Your task to perform on an android device: change the upload size in google photos Image 0: 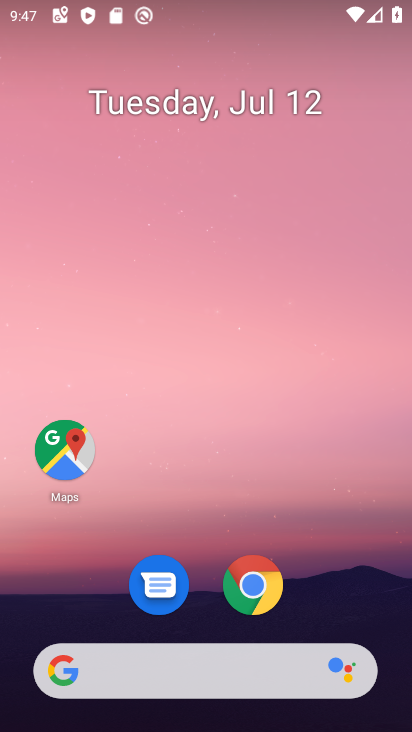
Step 0: drag from (172, 689) to (334, 176)
Your task to perform on an android device: change the upload size in google photos Image 1: 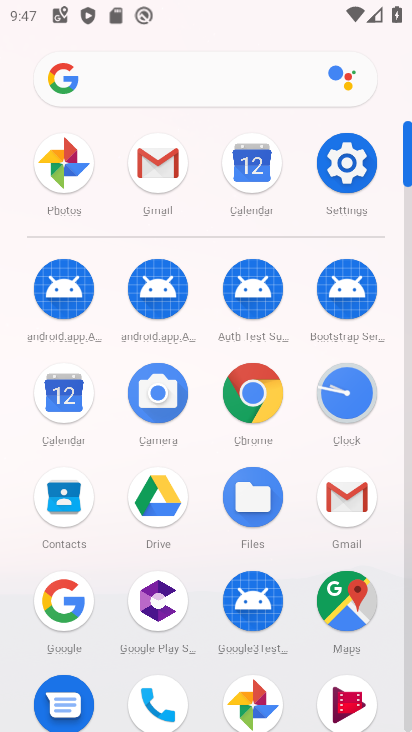
Step 1: click (59, 159)
Your task to perform on an android device: change the upload size in google photos Image 2: 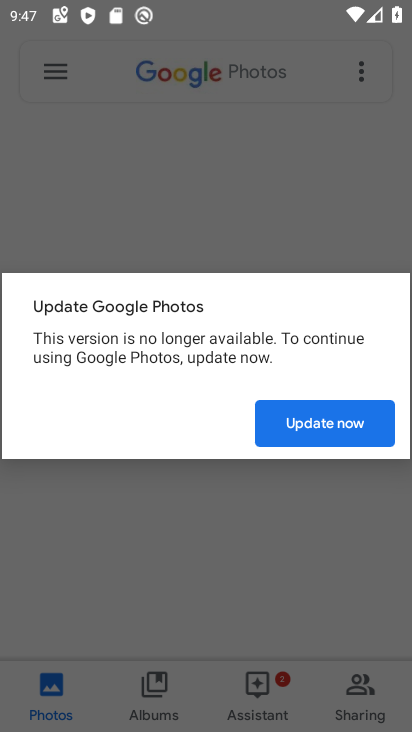
Step 2: click (313, 416)
Your task to perform on an android device: change the upload size in google photos Image 3: 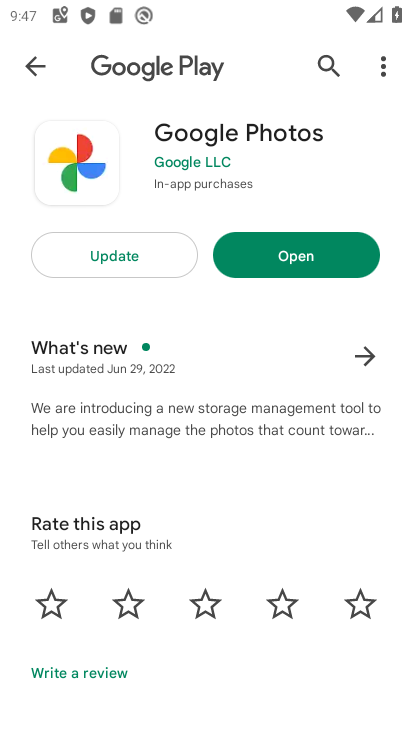
Step 3: click (293, 262)
Your task to perform on an android device: change the upload size in google photos Image 4: 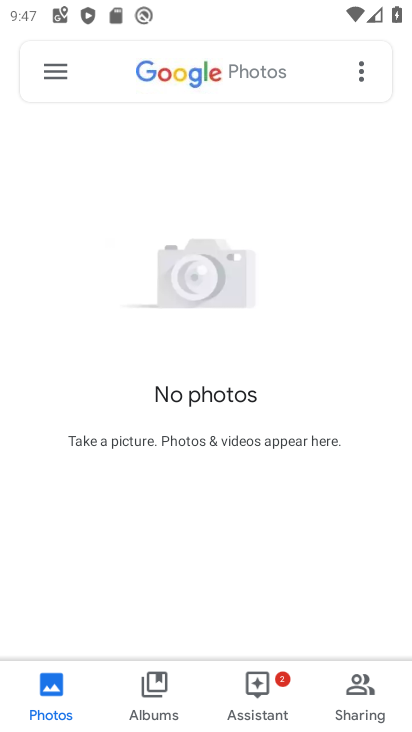
Step 4: click (59, 75)
Your task to perform on an android device: change the upload size in google photos Image 5: 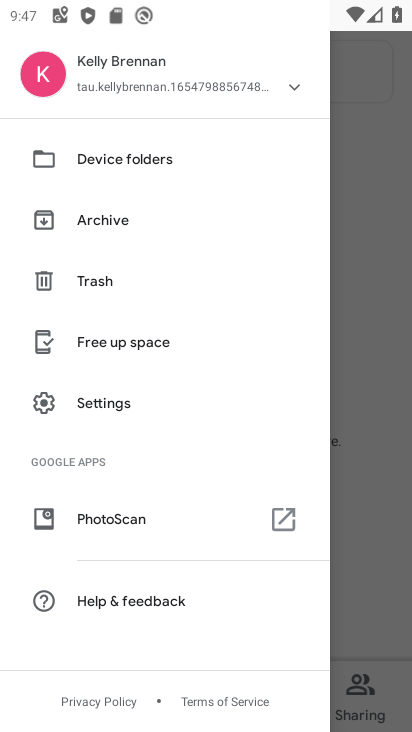
Step 5: click (109, 409)
Your task to perform on an android device: change the upload size in google photos Image 6: 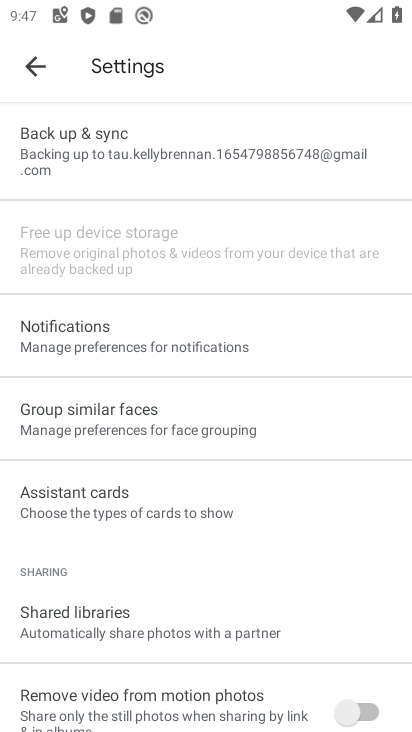
Step 6: click (161, 167)
Your task to perform on an android device: change the upload size in google photos Image 7: 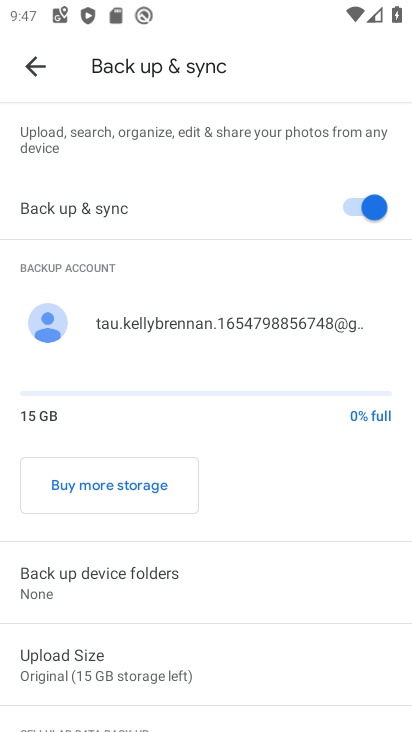
Step 7: drag from (190, 612) to (303, 368)
Your task to perform on an android device: change the upload size in google photos Image 8: 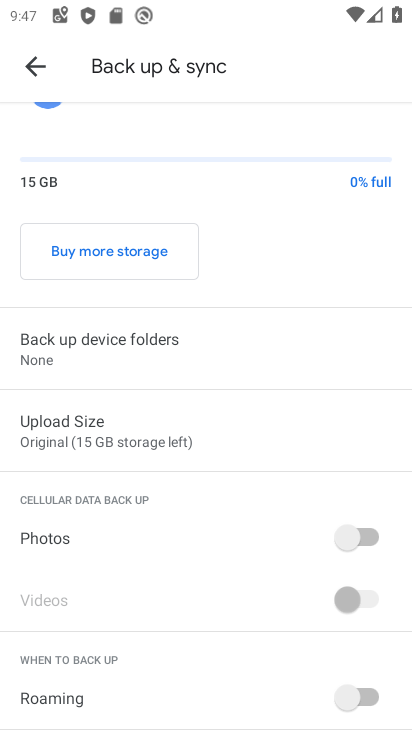
Step 8: click (127, 431)
Your task to perform on an android device: change the upload size in google photos Image 9: 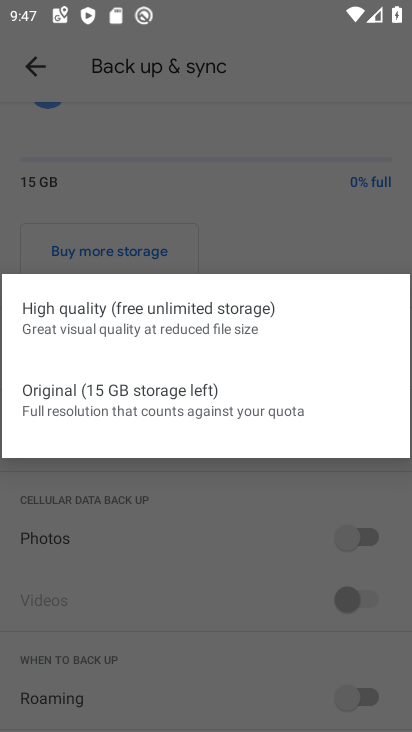
Step 9: click (102, 318)
Your task to perform on an android device: change the upload size in google photos Image 10: 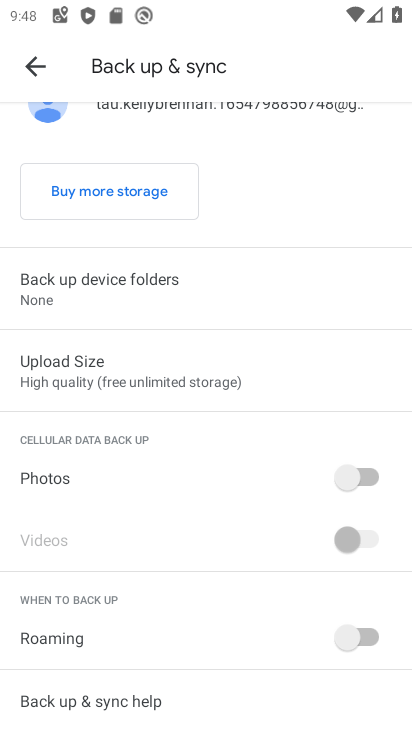
Step 10: task complete